Your task to perform on an android device: check out phone information Image 0: 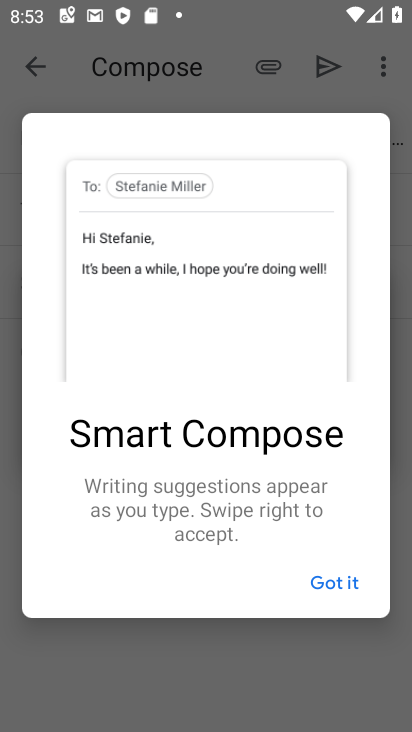
Step 0: press home button
Your task to perform on an android device: check out phone information Image 1: 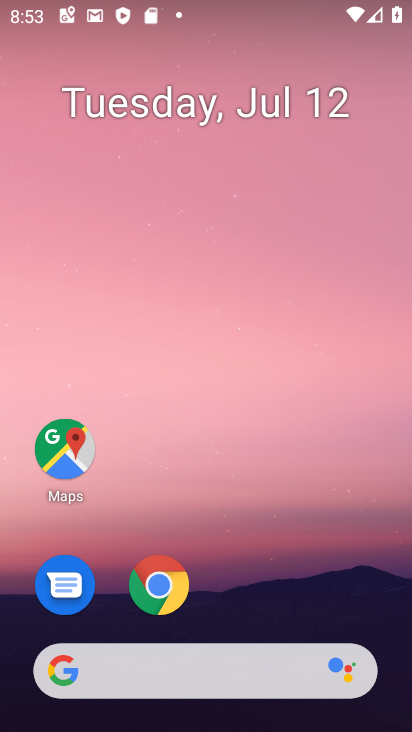
Step 1: drag from (274, 565) to (285, 61)
Your task to perform on an android device: check out phone information Image 2: 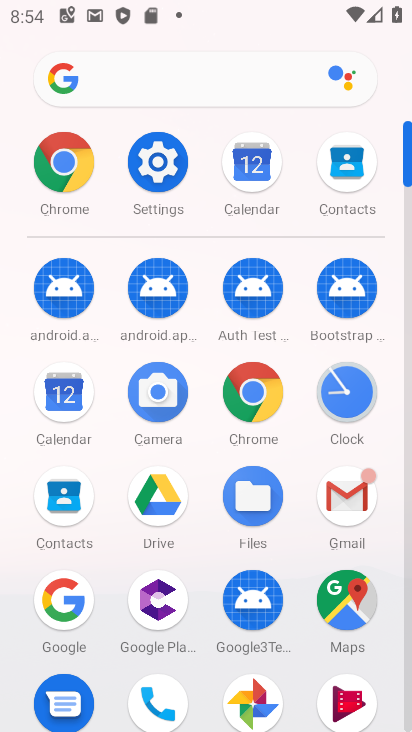
Step 2: click (162, 686)
Your task to perform on an android device: check out phone information Image 3: 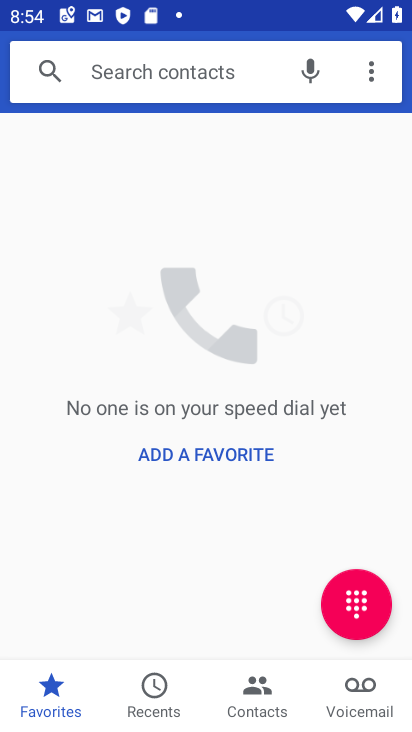
Step 3: click (369, 73)
Your task to perform on an android device: check out phone information Image 4: 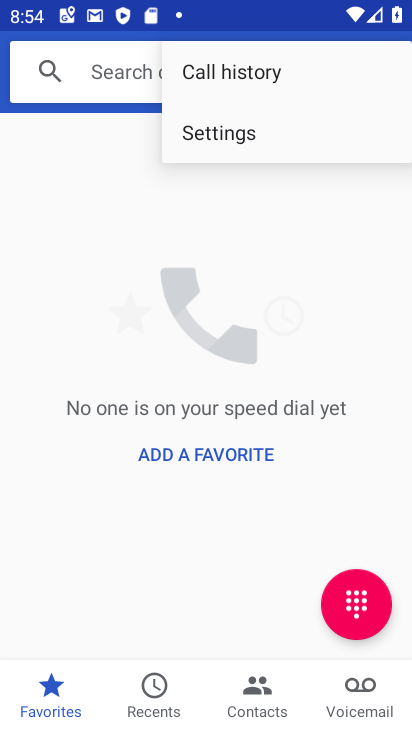
Step 4: click (307, 131)
Your task to perform on an android device: check out phone information Image 5: 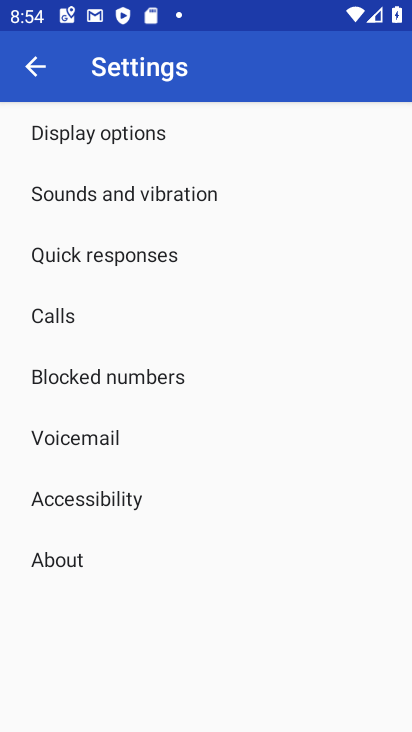
Step 5: click (76, 565)
Your task to perform on an android device: check out phone information Image 6: 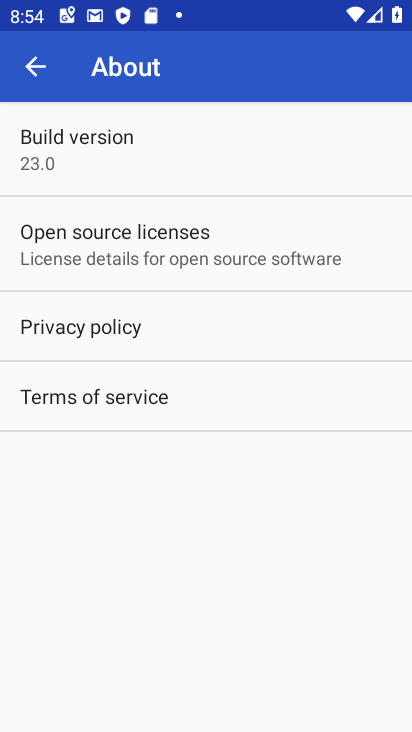
Step 6: task complete